Your task to perform on an android device: turn on bluetooth scan Image 0: 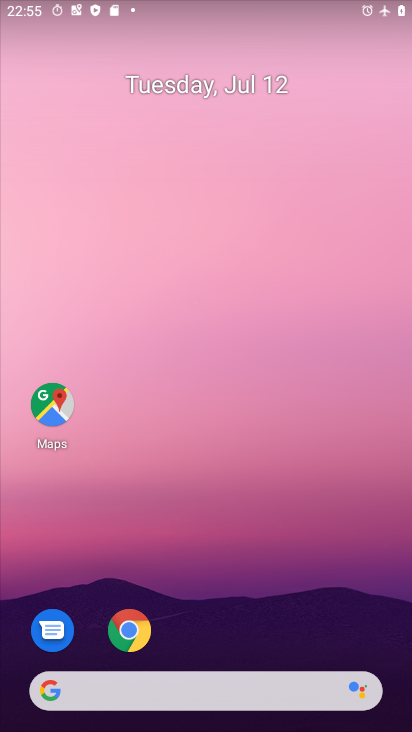
Step 0: drag from (222, 606) to (287, 17)
Your task to perform on an android device: turn on bluetooth scan Image 1: 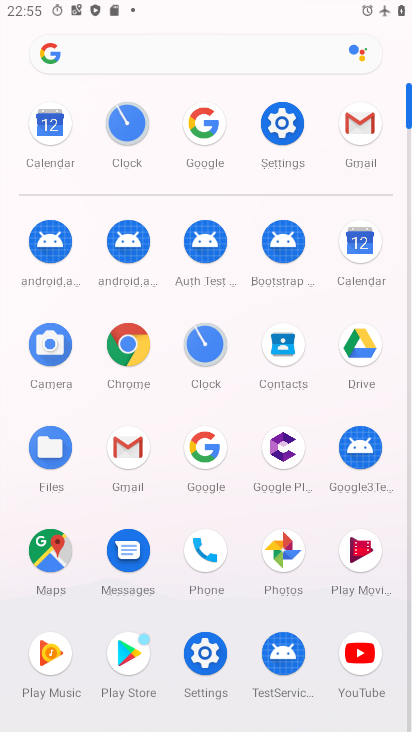
Step 1: click (284, 125)
Your task to perform on an android device: turn on bluetooth scan Image 2: 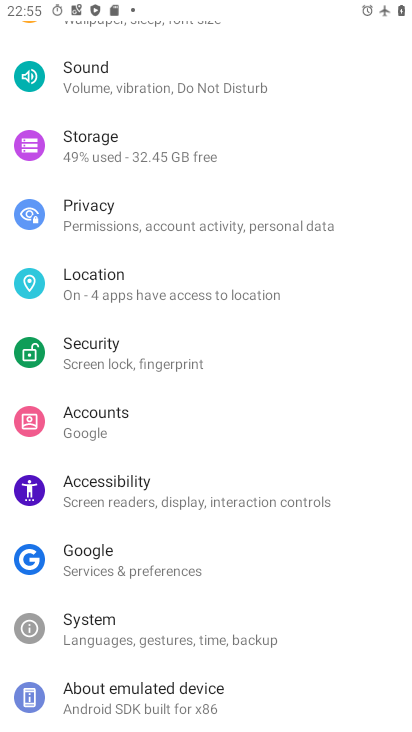
Step 2: drag from (285, 146) to (160, 720)
Your task to perform on an android device: turn on bluetooth scan Image 3: 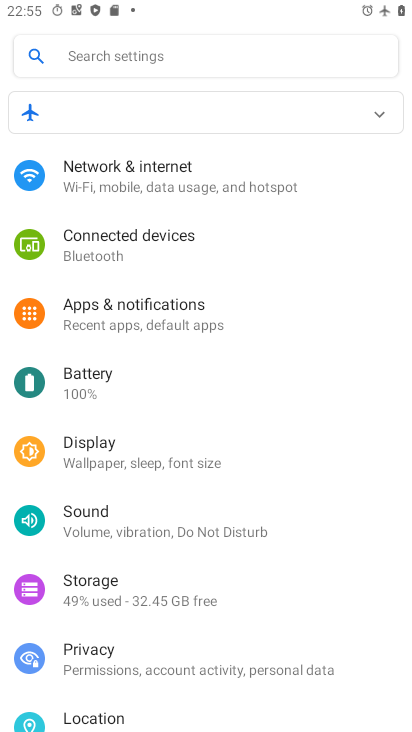
Step 3: click (132, 242)
Your task to perform on an android device: turn on bluetooth scan Image 4: 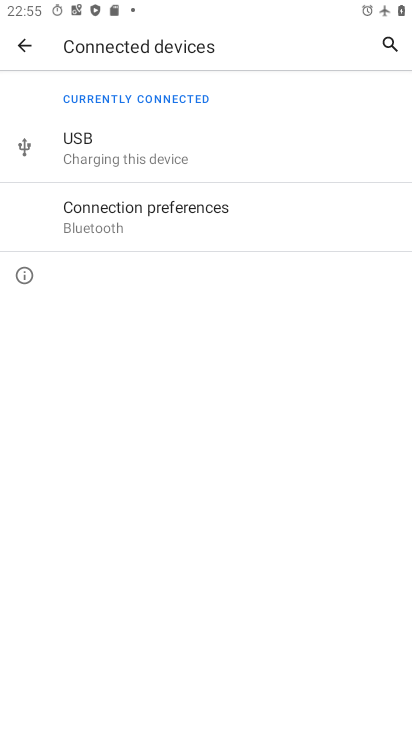
Step 4: click (136, 241)
Your task to perform on an android device: turn on bluetooth scan Image 5: 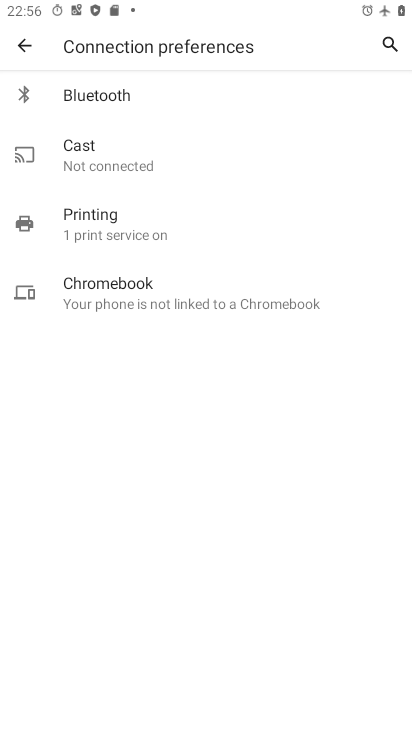
Step 5: click (152, 96)
Your task to perform on an android device: turn on bluetooth scan Image 6: 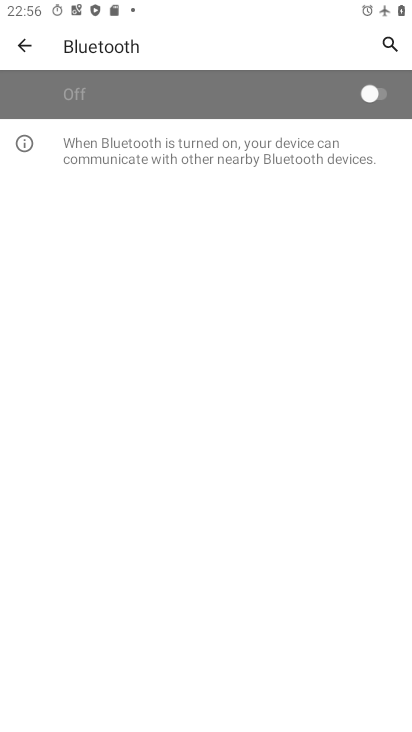
Step 6: click (368, 93)
Your task to perform on an android device: turn on bluetooth scan Image 7: 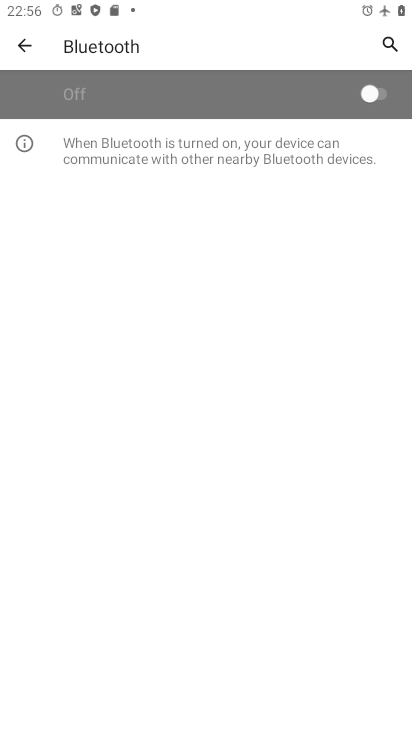
Step 7: task complete